Your task to perform on an android device: See recent photos Image 0: 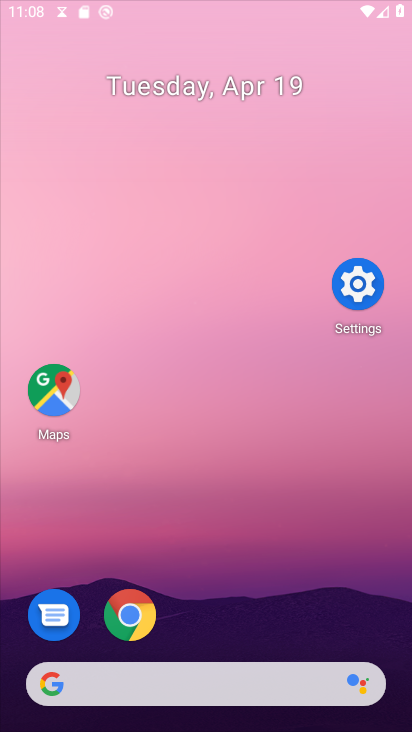
Step 0: click (70, 110)
Your task to perform on an android device: See recent photos Image 1: 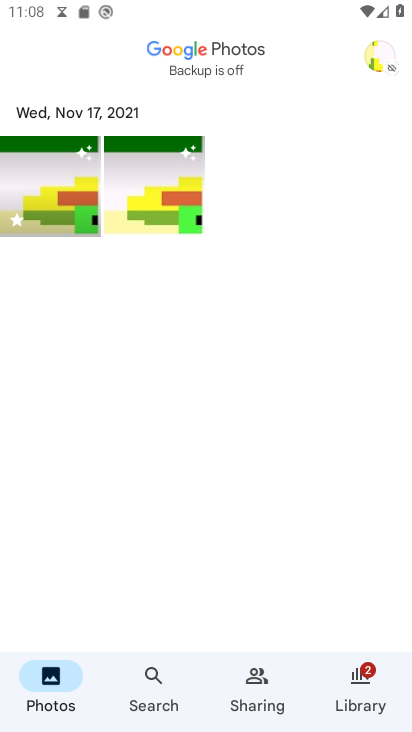
Step 1: press home button
Your task to perform on an android device: See recent photos Image 2: 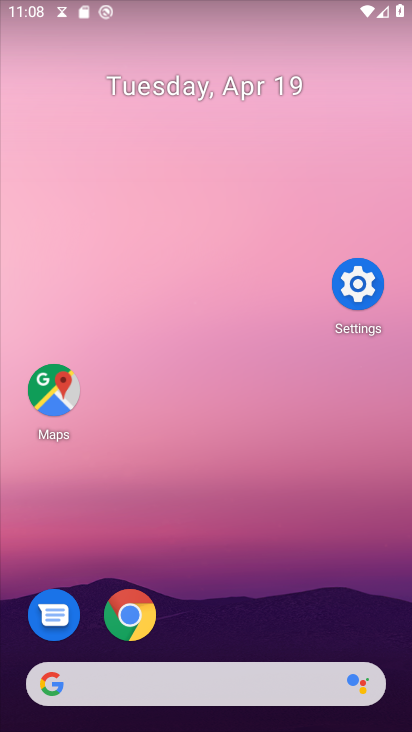
Step 2: drag from (209, 594) to (242, 172)
Your task to perform on an android device: See recent photos Image 3: 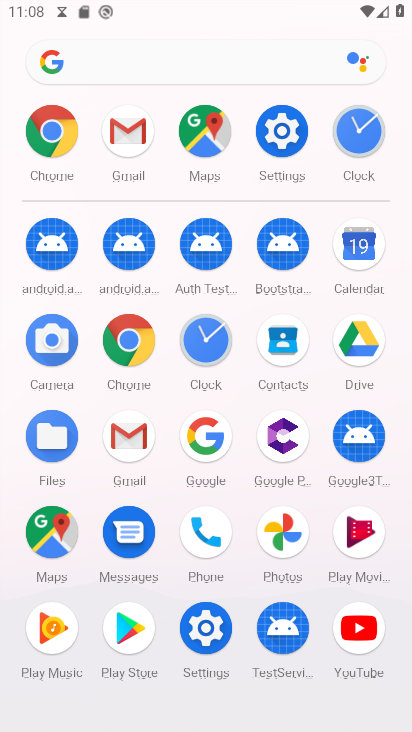
Step 3: click (289, 530)
Your task to perform on an android device: See recent photos Image 4: 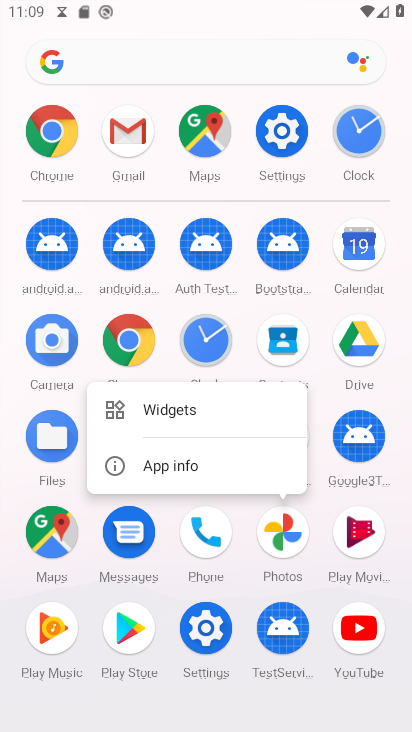
Step 4: click (154, 456)
Your task to perform on an android device: See recent photos Image 5: 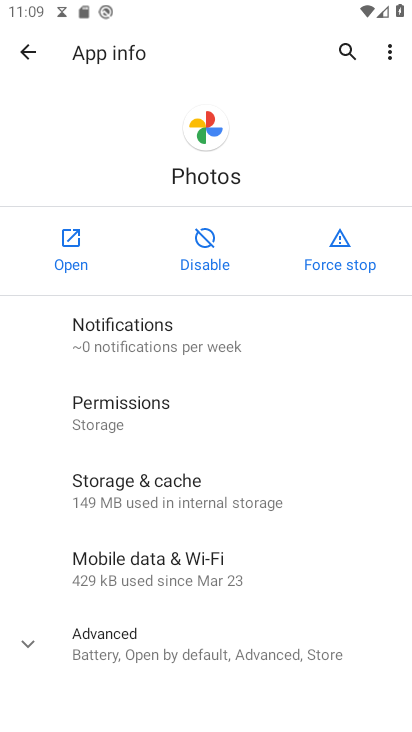
Step 5: click (74, 242)
Your task to perform on an android device: See recent photos Image 6: 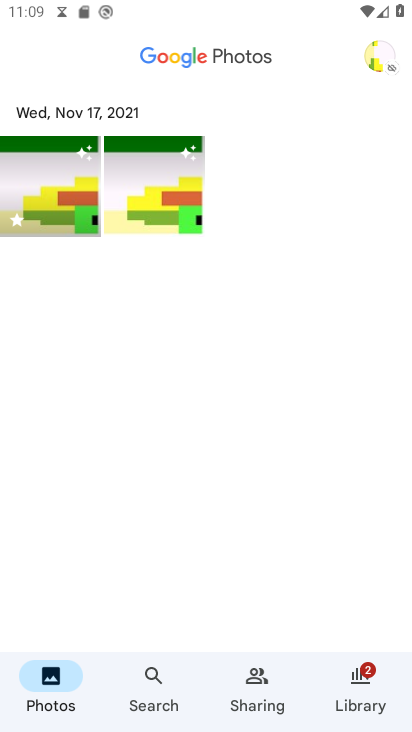
Step 6: click (161, 208)
Your task to perform on an android device: See recent photos Image 7: 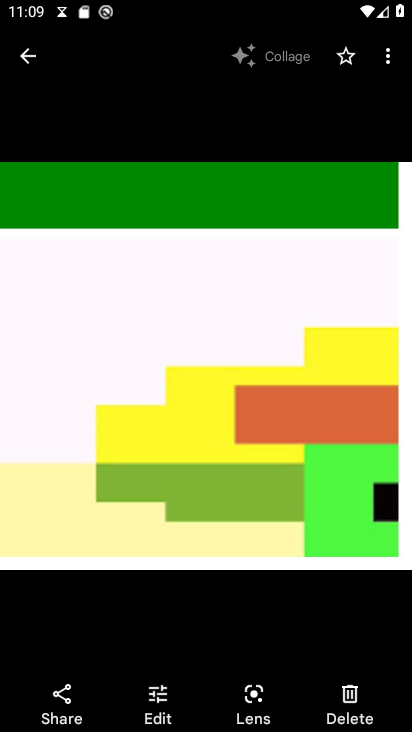
Step 7: drag from (314, 306) to (26, 362)
Your task to perform on an android device: See recent photos Image 8: 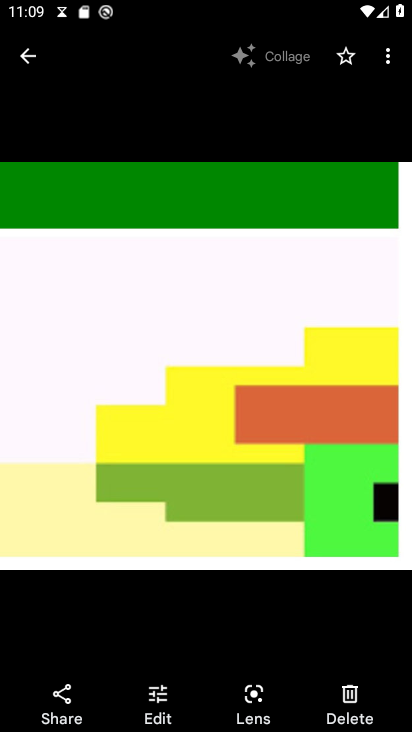
Step 8: click (84, 446)
Your task to perform on an android device: See recent photos Image 9: 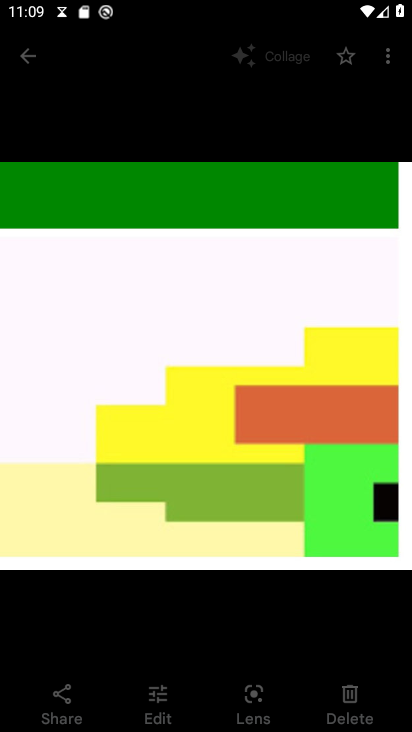
Step 9: task complete